Your task to perform on an android device: Go to privacy settings Image 0: 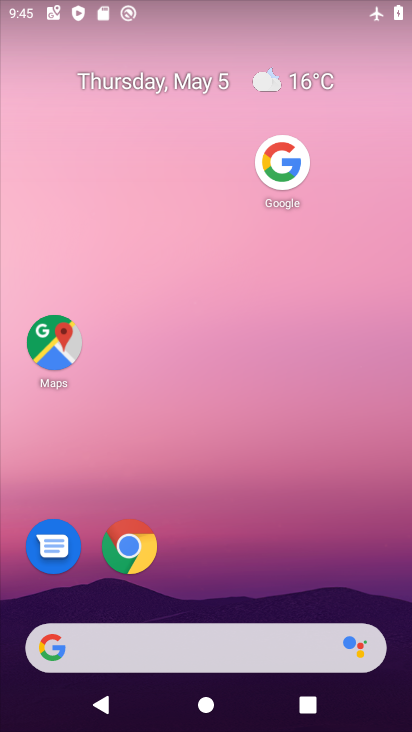
Step 0: drag from (187, 614) to (309, 87)
Your task to perform on an android device: Go to privacy settings Image 1: 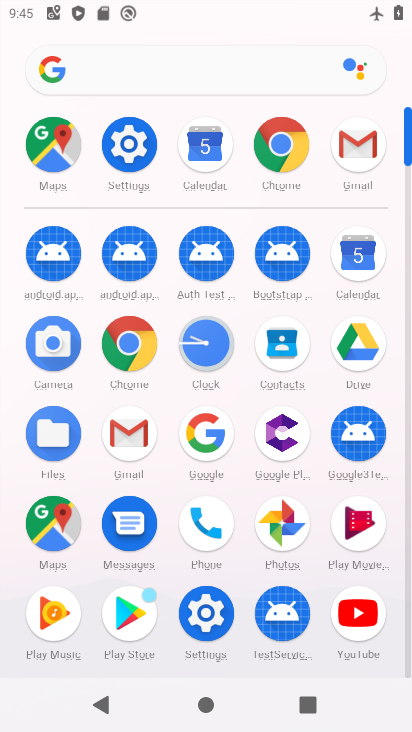
Step 1: click (128, 152)
Your task to perform on an android device: Go to privacy settings Image 2: 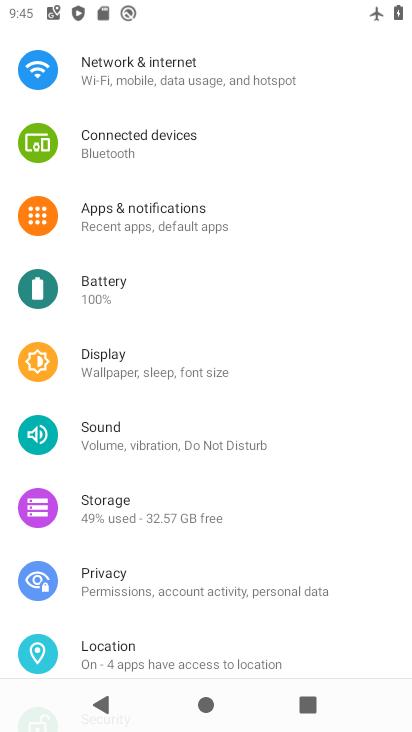
Step 2: click (119, 586)
Your task to perform on an android device: Go to privacy settings Image 3: 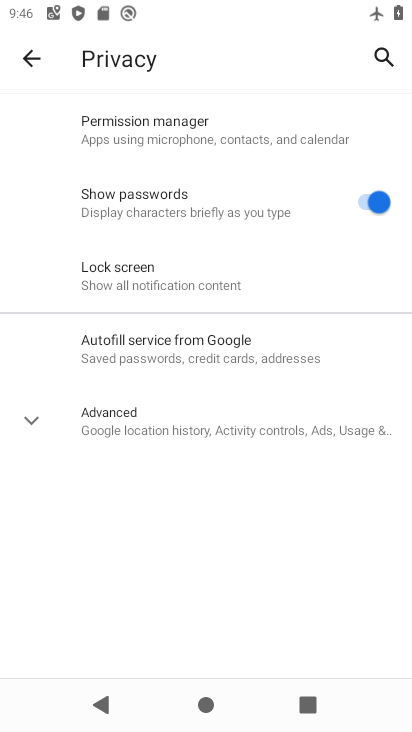
Step 3: task complete